Your task to perform on an android device: Set the phone to "Do not disturb". Image 0: 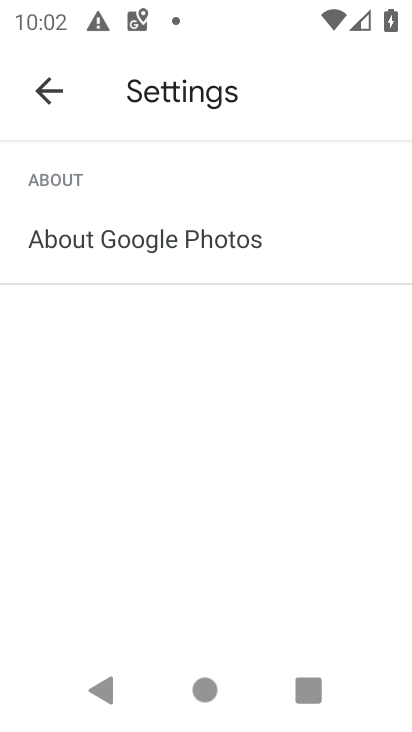
Step 0: press home button
Your task to perform on an android device: Set the phone to "Do not disturb". Image 1: 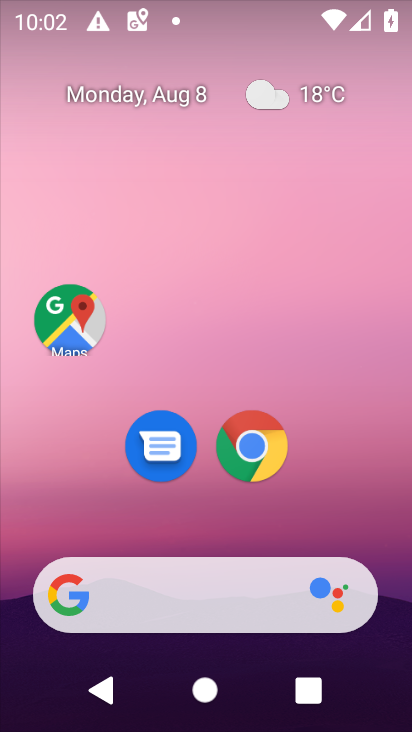
Step 1: drag from (395, 629) to (360, 114)
Your task to perform on an android device: Set the phone to "Do not disturb". Image 2: 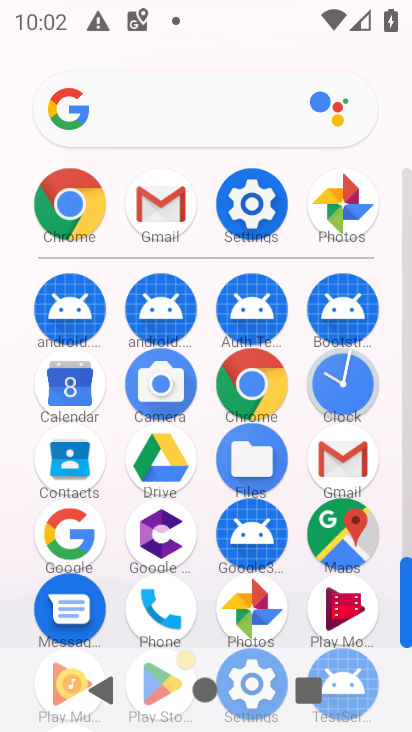
Step 2: click (405, 536)
Your task to perform on an android device: Set the phone to "Do not disturb". Image 3: 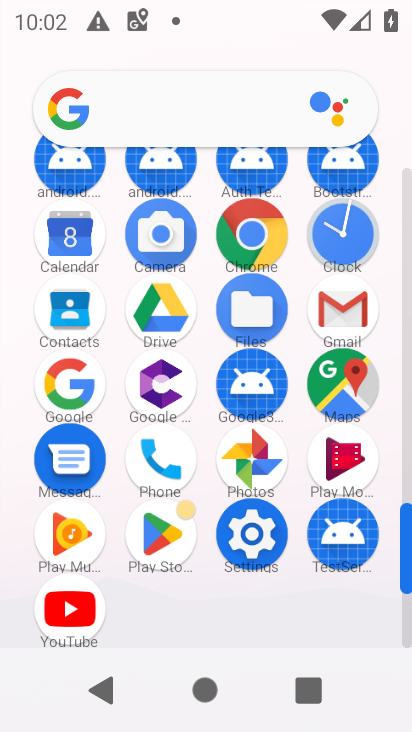
Step 3: click (252, 532)
Your task to perform on an android device: Set the phone to "Do not disturb". Image 4: 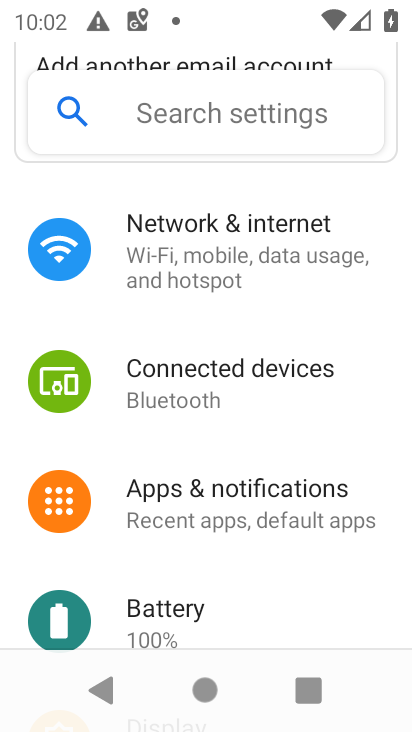
Step 4: drag from (351, 597) to (347, 268)
Your task to perform on an android device: Set the phone to "Do not disturb". Image 5: 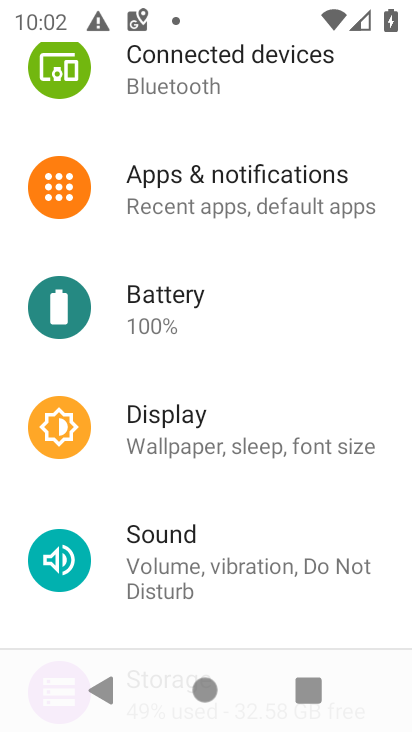
Step 5: click (200, 564)
Your task to perform on an android device: Set the phone to "Do not disturb". Image 6: 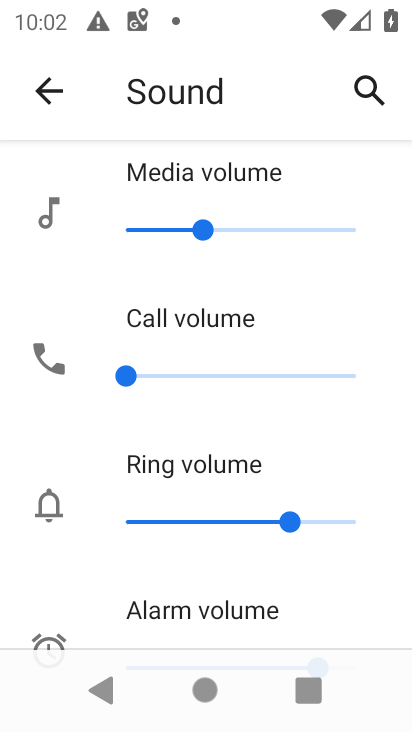
Step 6: drag from (354, 588) to (318, 183)
Your task to perform on an android device: Set the phone to "Do not disturb". Image 7: 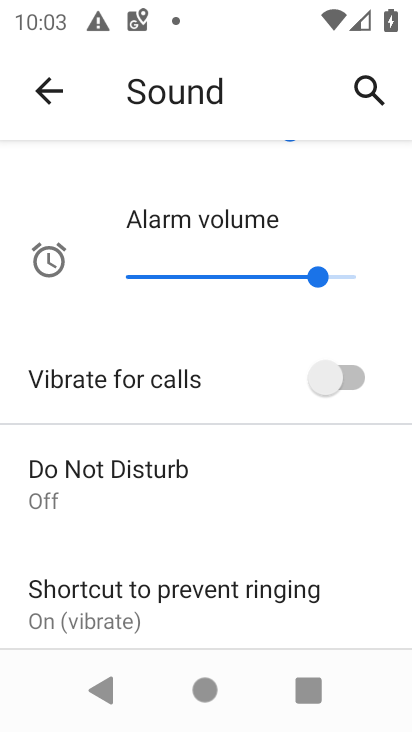
Step 7: click (94, 472)
Your task to perform on an android device: Set the phone to "Do not disturb". Image 8: 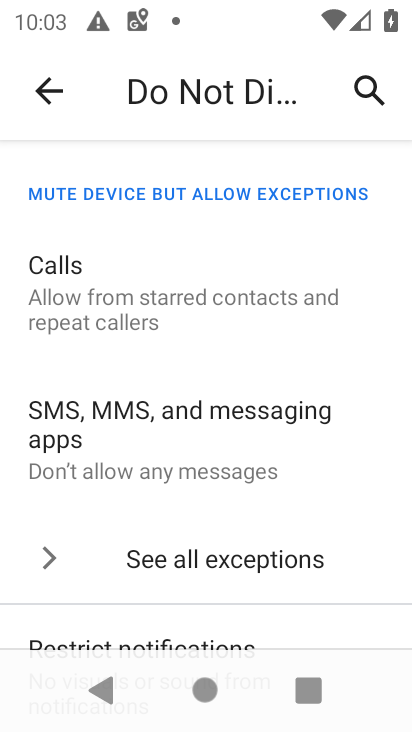
Step 8: drag from (215, 610) to (237, 316)
Your task to perform on an android device: Set the phone to "Do not disturb". Image 9: 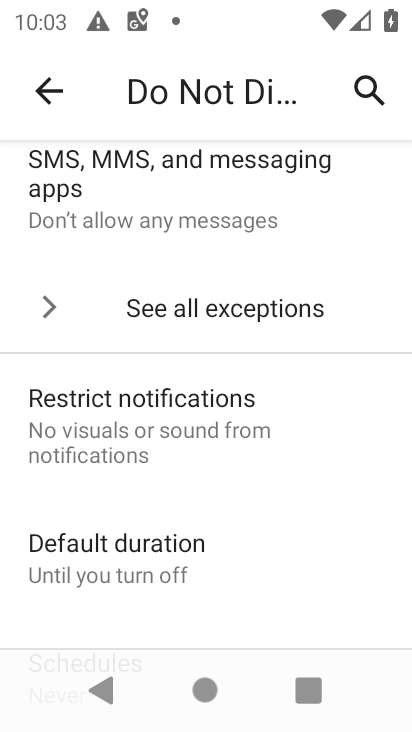
Step 9: drag from (218, 549) to (249, 207)
Your task to perform on an android device: Set the phone to "Do not disturb". Image 10: 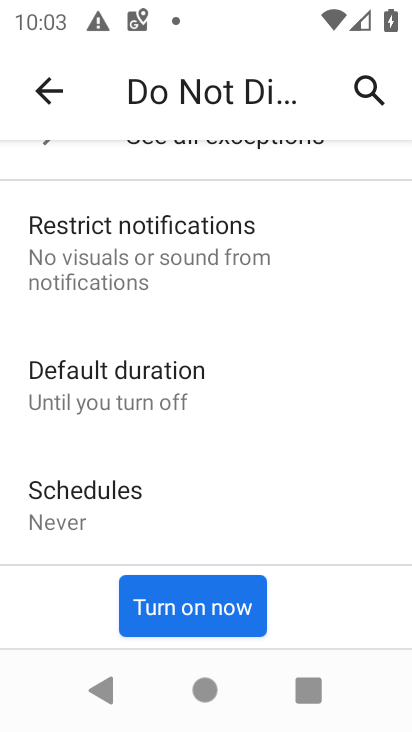
Step 10: click (194, 614)
Your task to perform on an android device: Set the phone to "Do not disturb". Image 11: 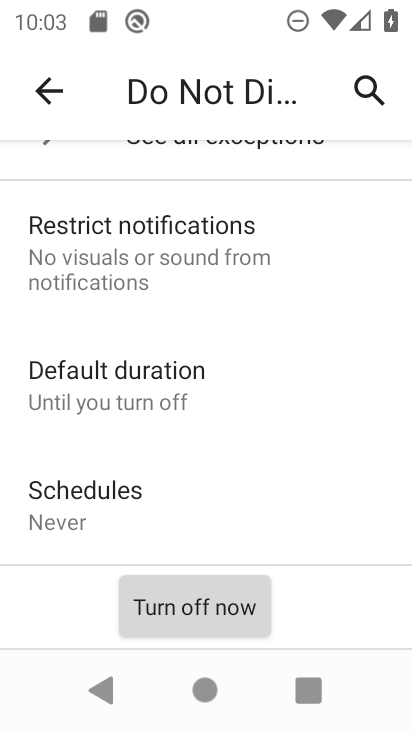
Step 11: task complete